Your task to perform on an android device: open chrome and create a bookmark for the current page Image 0: 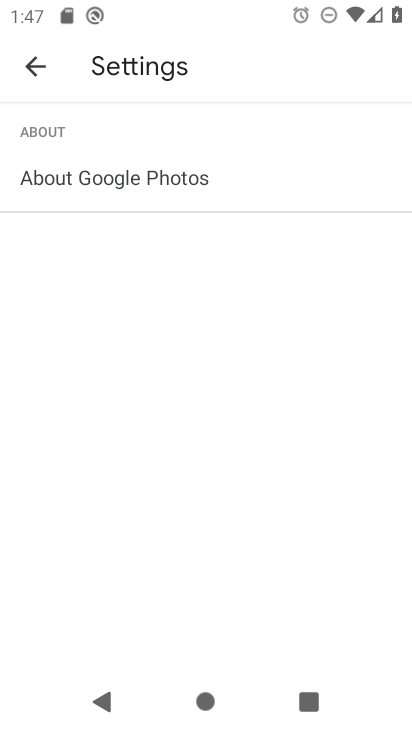
Step 0: press home button
Your task to perform on an android device: open chrome and create a bookmark for the current page Image 1: 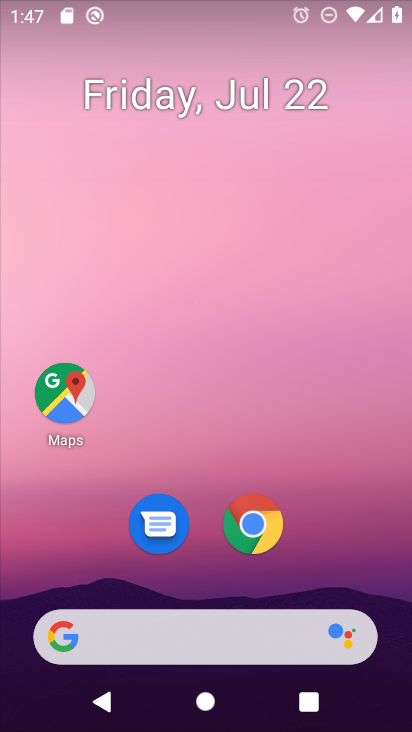
Step 1: click (260, 533)
Your task to perform on an android device: open chrome and create a bookmark for the current page Image 2: 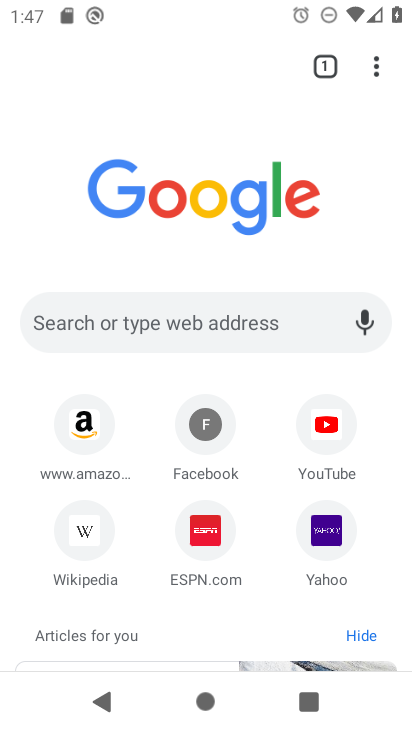
Step 2: click (378, 56)
Your task to perform on an android device: open chrome and create a bookmark for the current page Image 3: 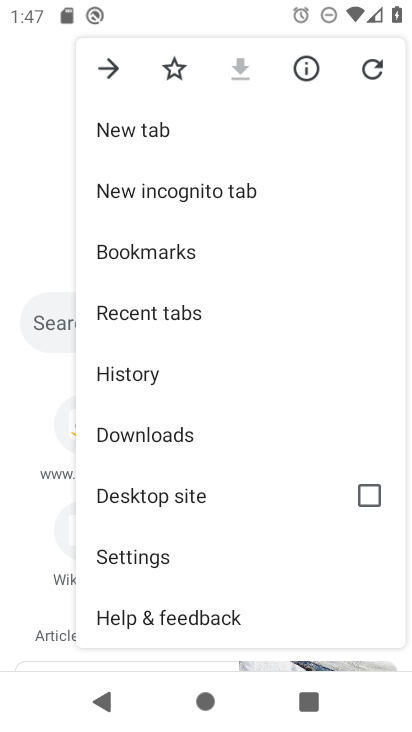
Step 3: click (172, 65)
Your task to perform on an android device: open chrome and create a bookmark for the current page Image 4: 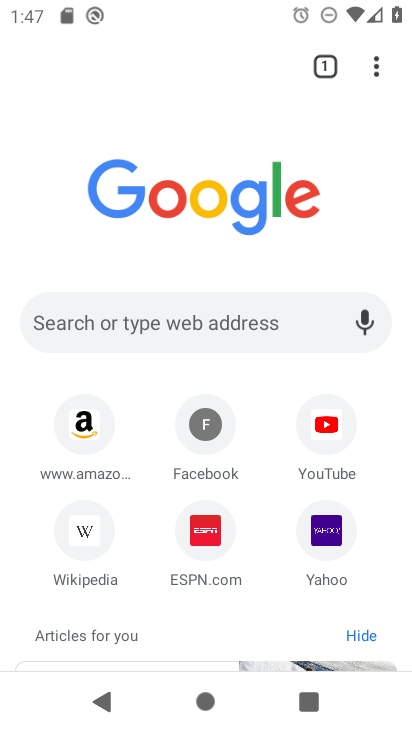
Step 4: task complete